Your task to perform on an android device: Toggle the flashlight Image 0: 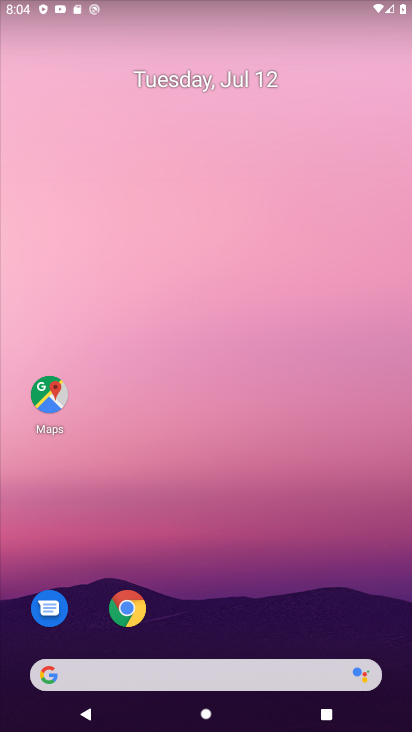
Step 0: drag from (273, 4) to (231, 517)
Your task to perform on an android device: Toggle the flashlight Image 1: 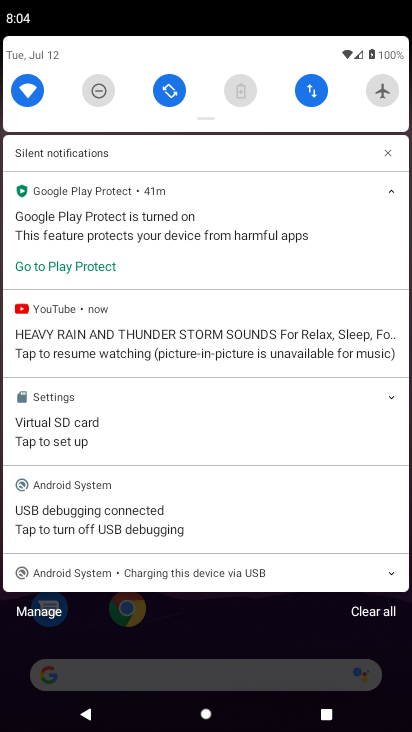
Step 1: task complete